Your task to perform on an android device: What's the weather today? Image 0: 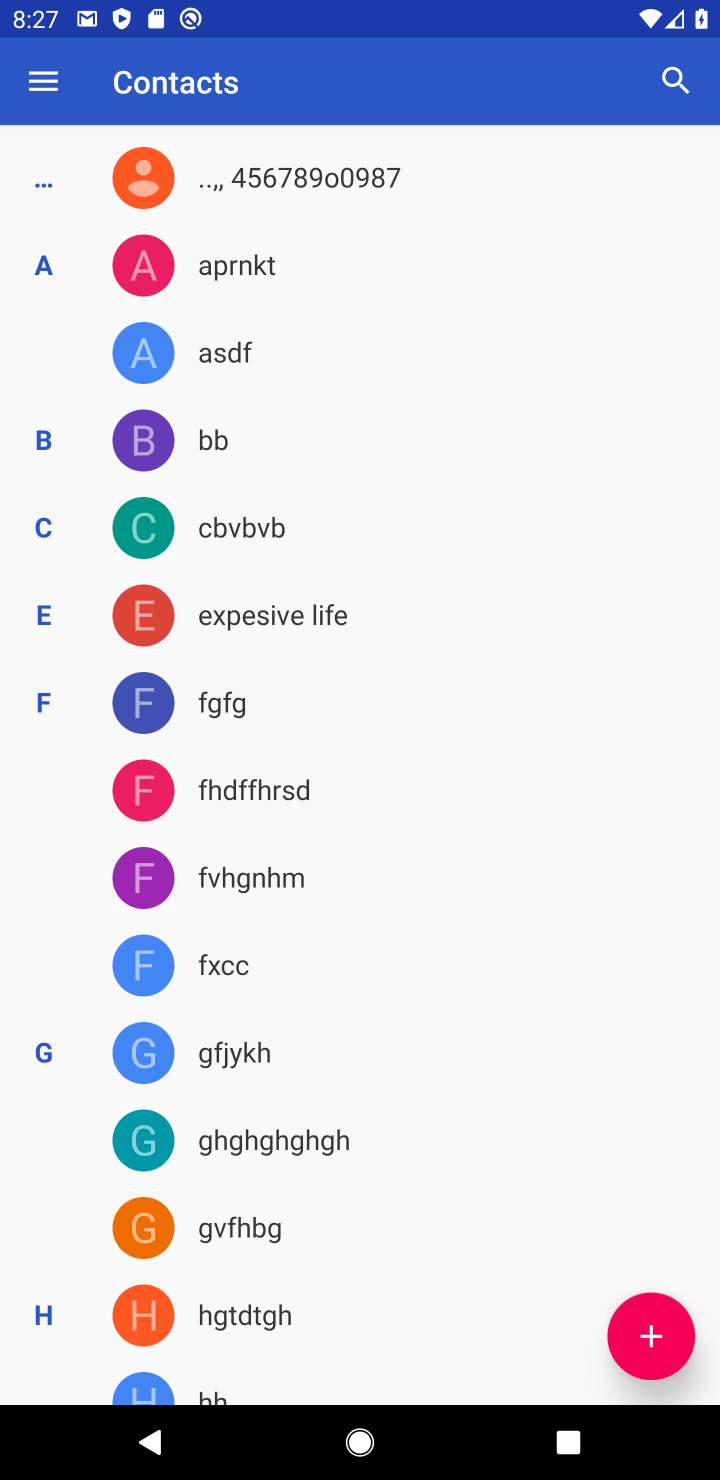
Step 0: press home button
Your task to perform on an android device: What's the weather today? Image 1: 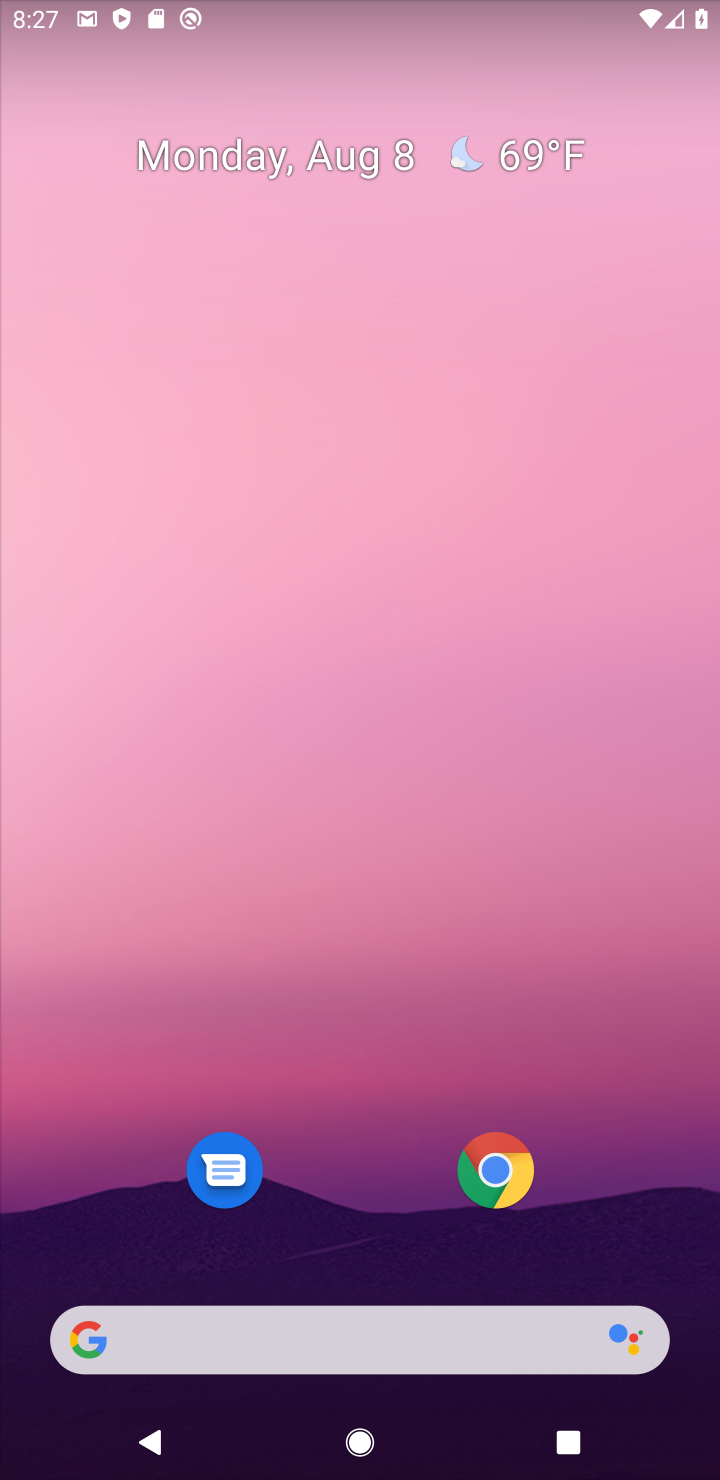
Step 1: drag from (606, 1144) to (532, 294)
Your task to perform on an android device: What's the weather today? Image 2: 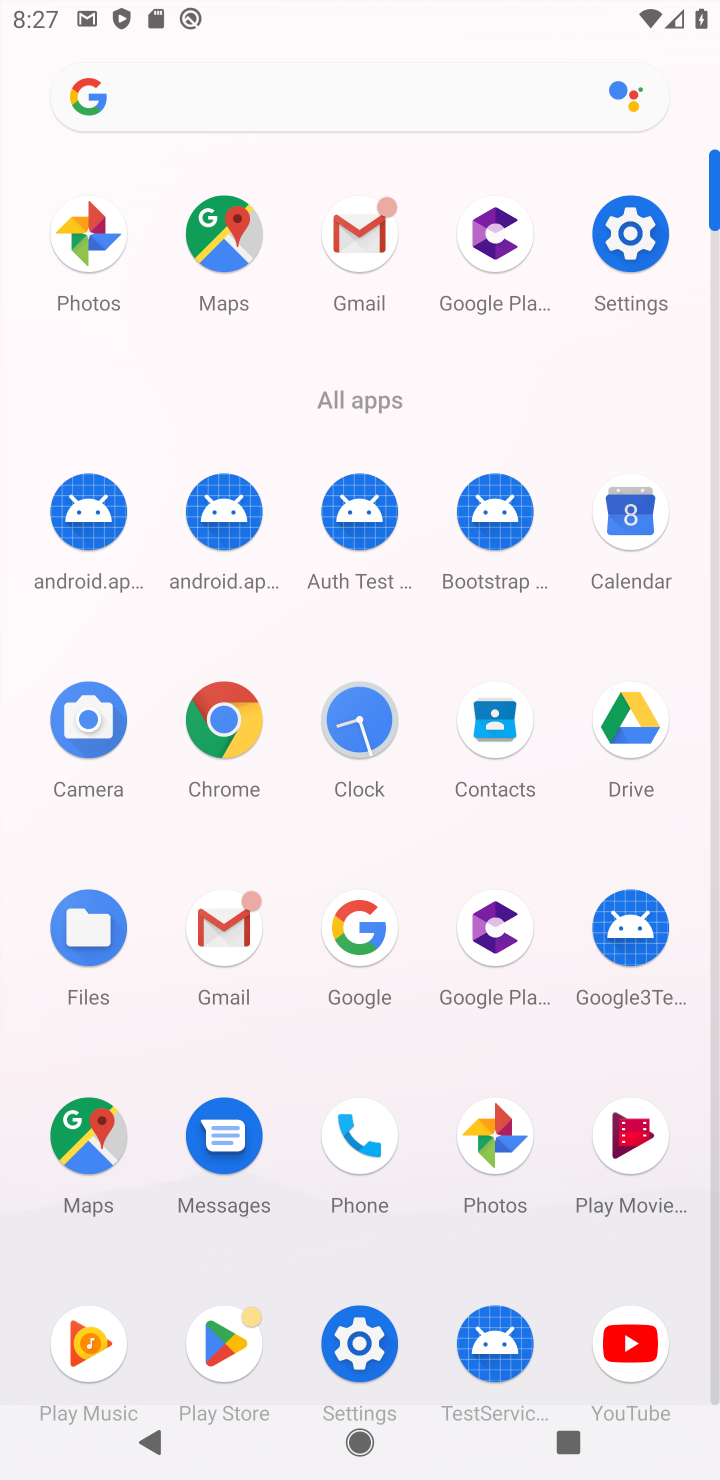
Step 2: click (229, 752)
Your task to perform on an android device: What's the weather today? Image 3: 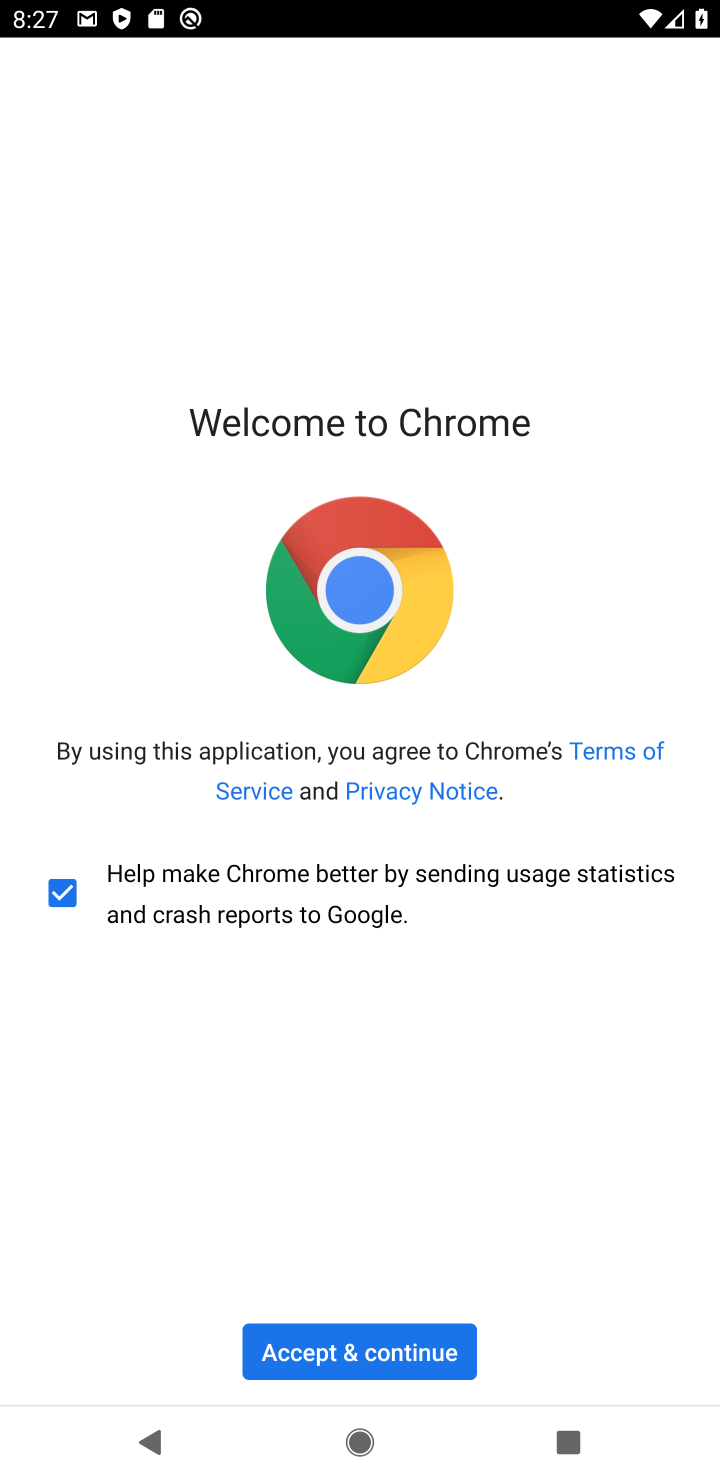
Step 3: click (368, 1346)
Your task to perform on an android device: What's the weather today? Image 4: 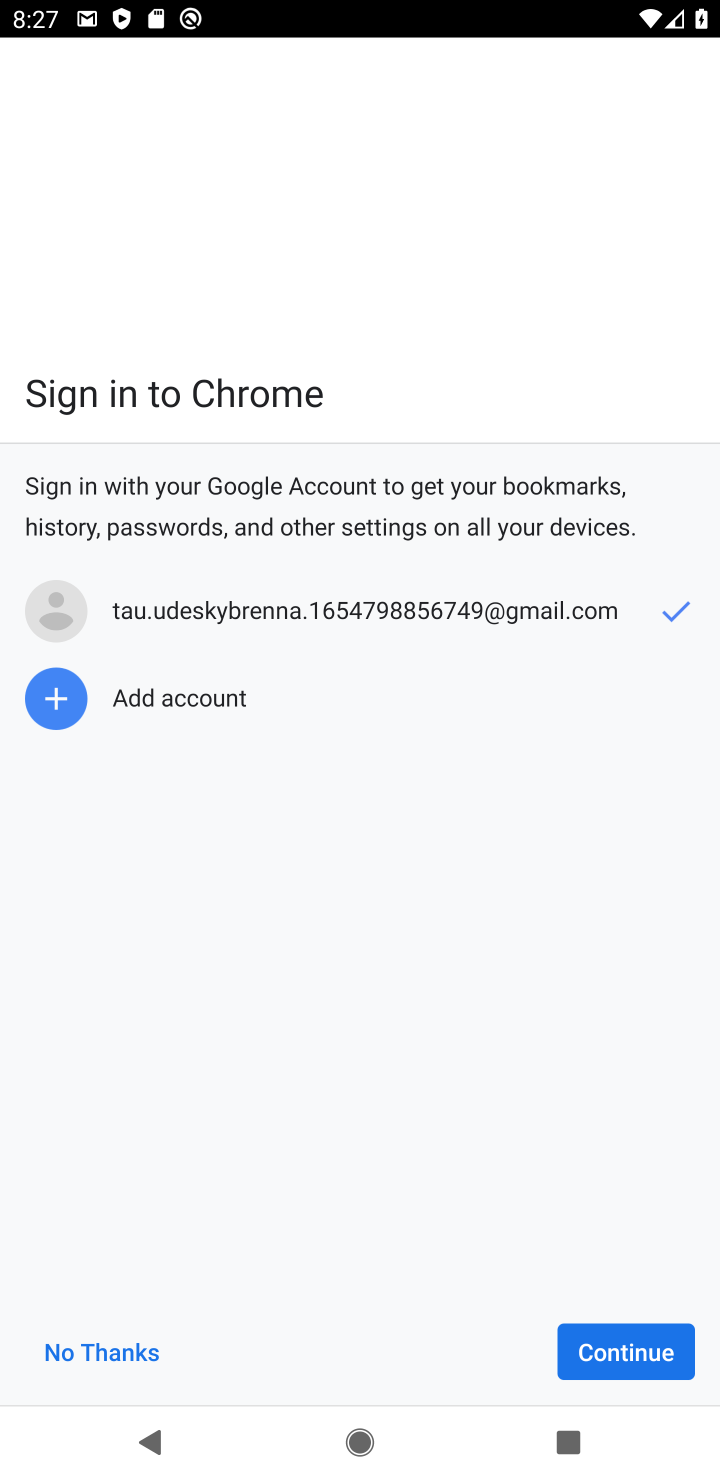
Step 4: click (143, 1346)
Your task to perform on an android device: What's the weather today? Image 5: 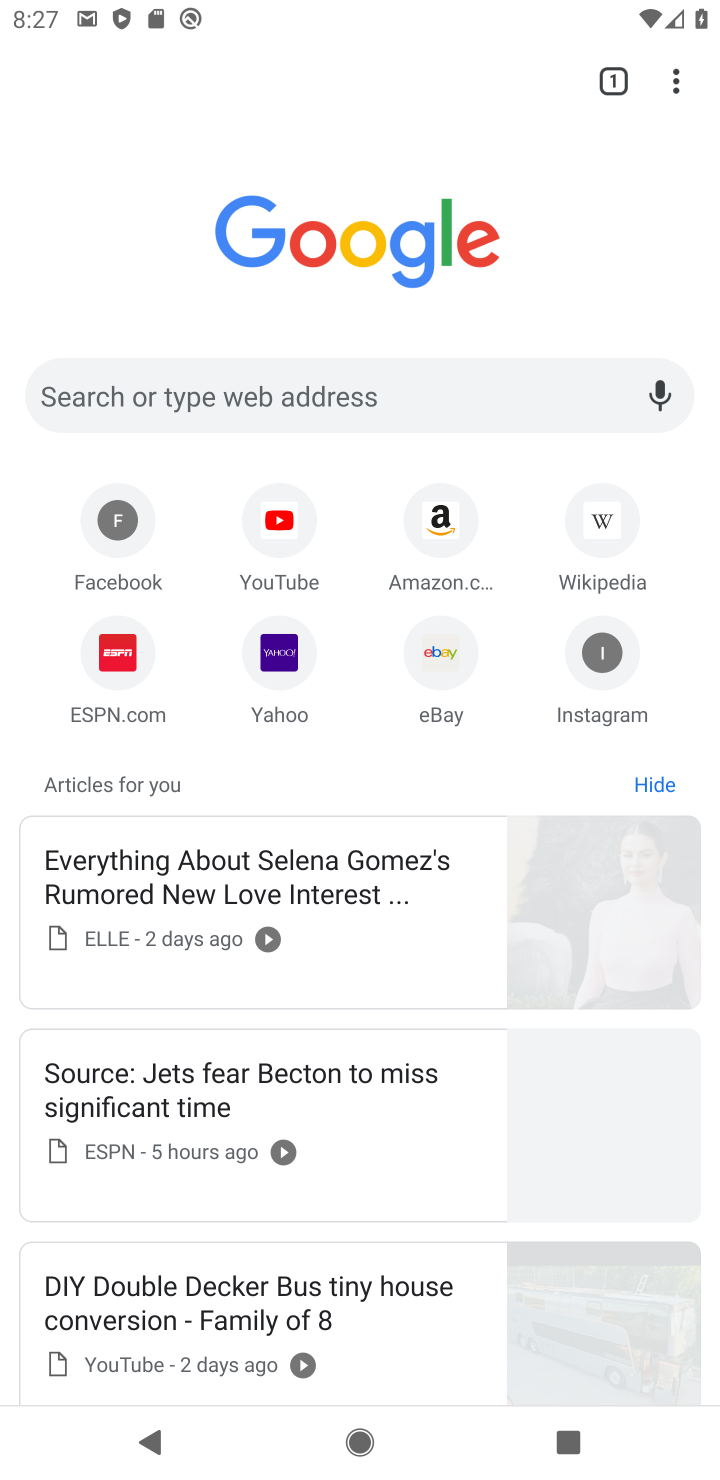
Step 5: click (380, 387)
Your task to perform on an android device: What's the weather today? Image 6: 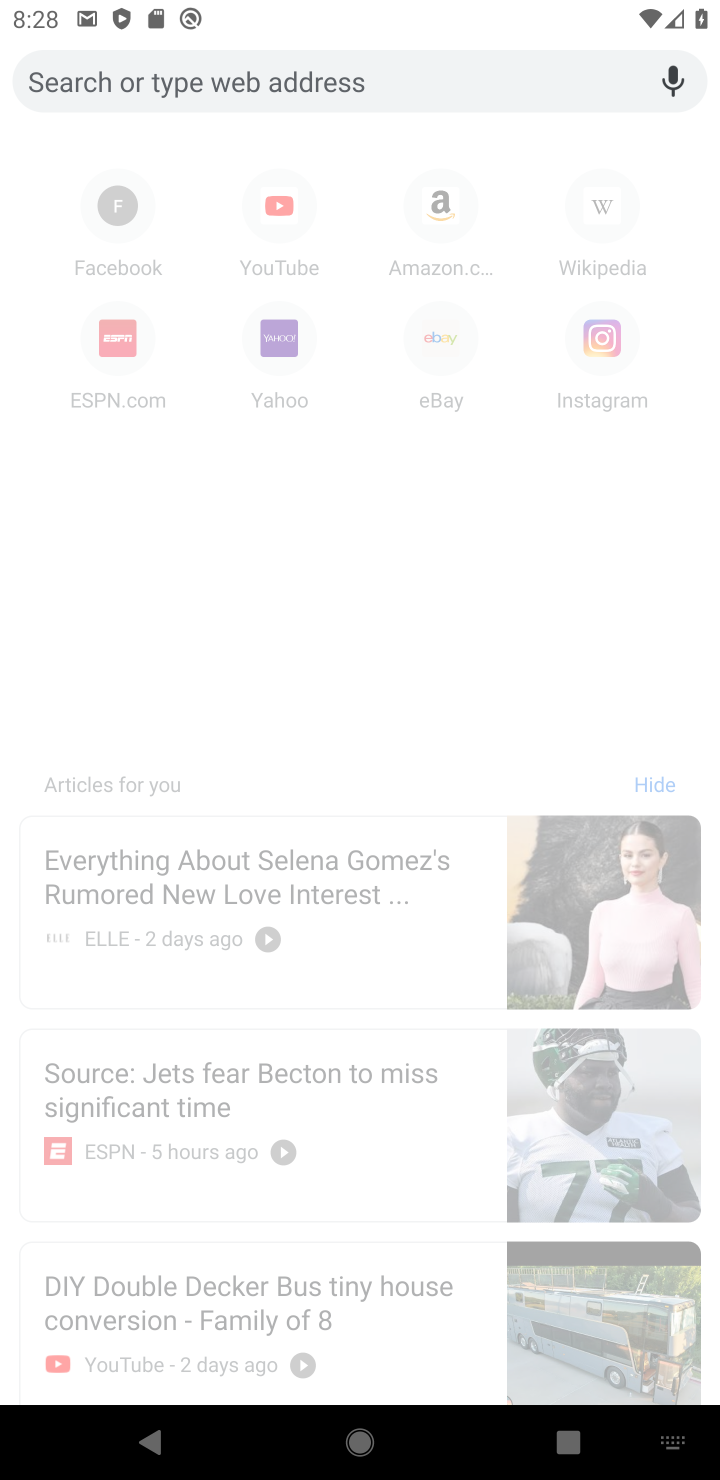
Step 6: type "weather"
Your task to perform on an android device: What's the weather today? Image 7: 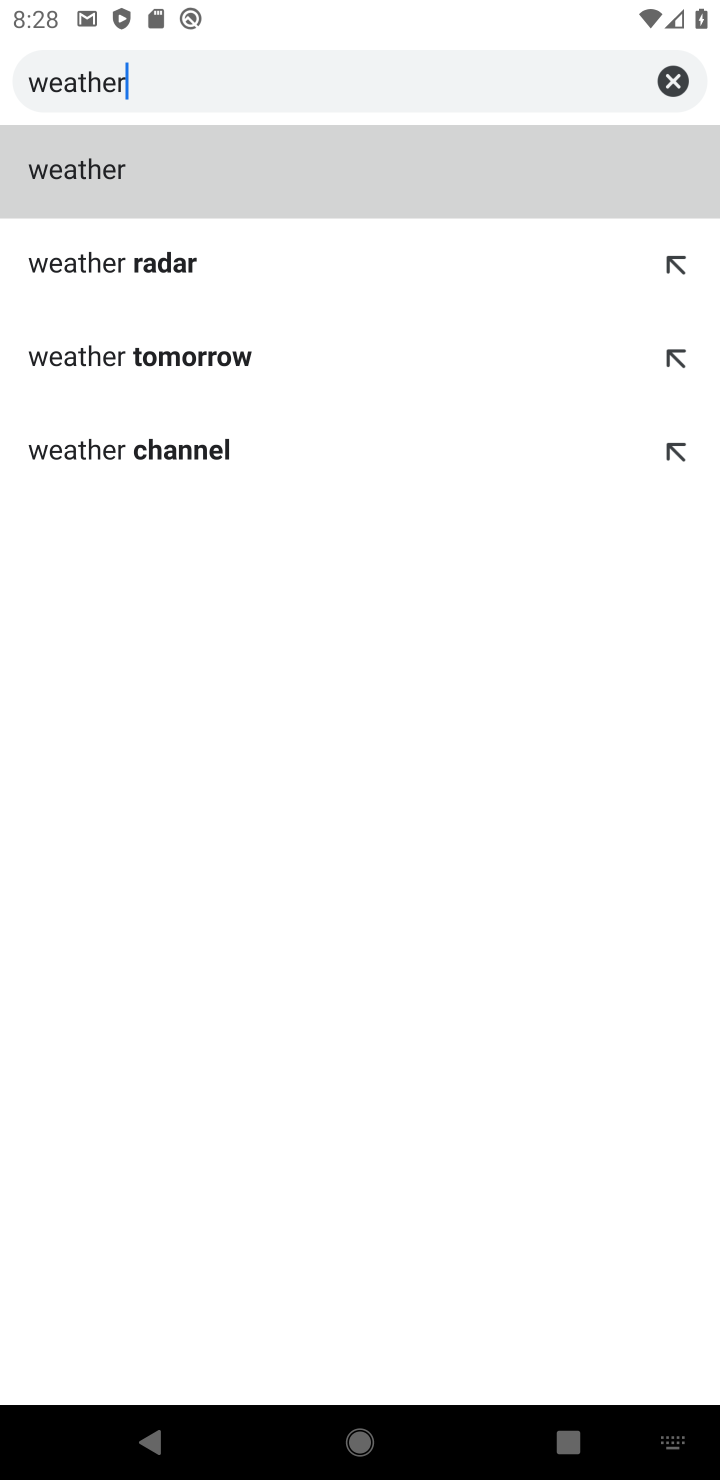
Step 7: click (251, 190)
Your task to perform on an android device: What's the weather today? Image 8: 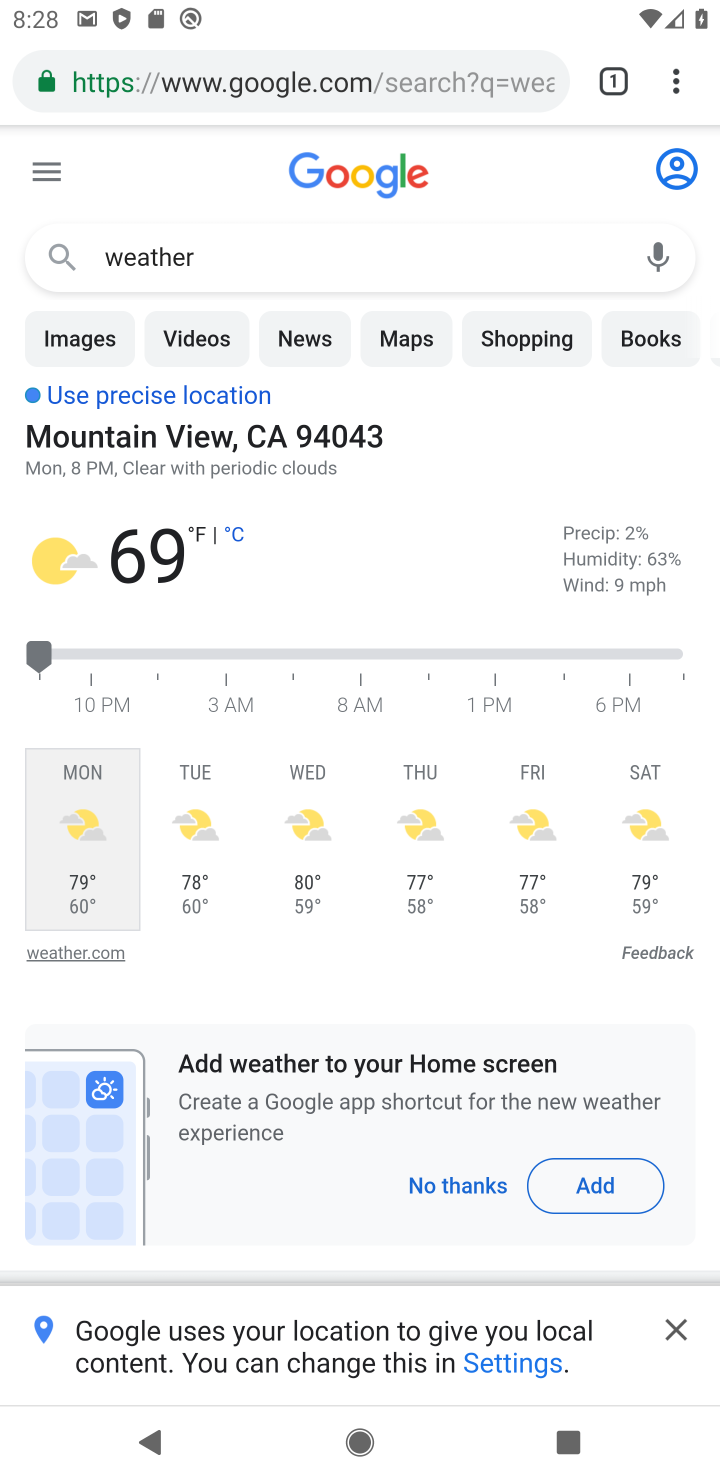
Step 8: task complete